Your task to perform on an android device: Open internet settings Image 0: 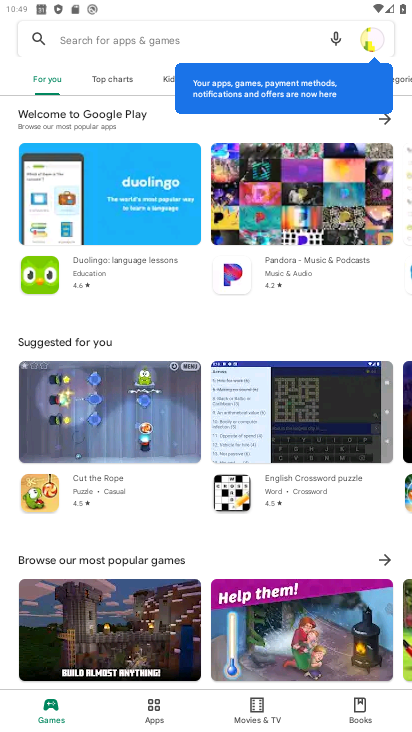
Step 0: press home button
Your task to perform on an android device: Open internet settings Image 1: 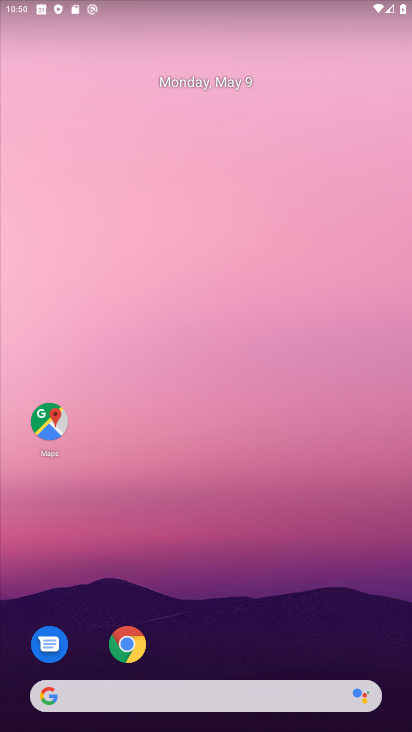
Step 1: drag from (271, 603) to (278, 214)
Your task to perform on an android device: Open internet settings Image 2: 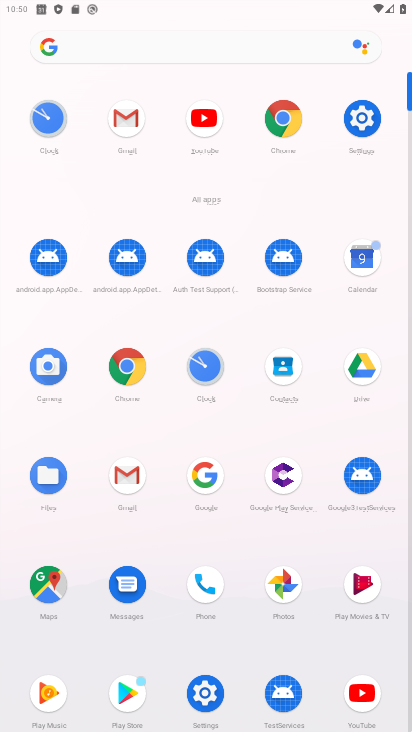
Step 2: click (355, 114)
Your task to perform on an android device: Open internet settings Image 3: 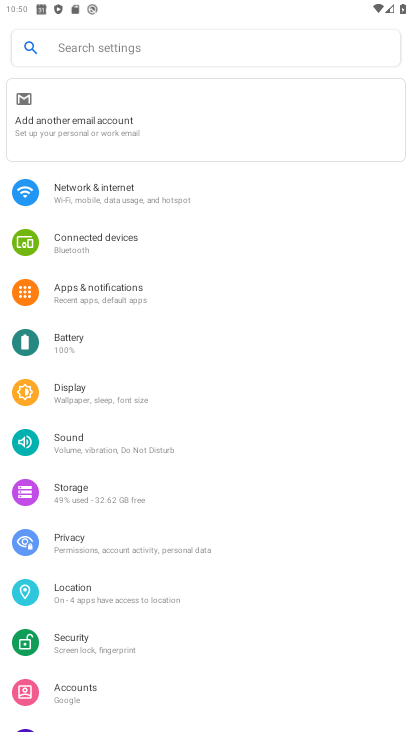
Step 3: click (158, 203)
Your task to perform on an android device: Open internet settings Image 4: 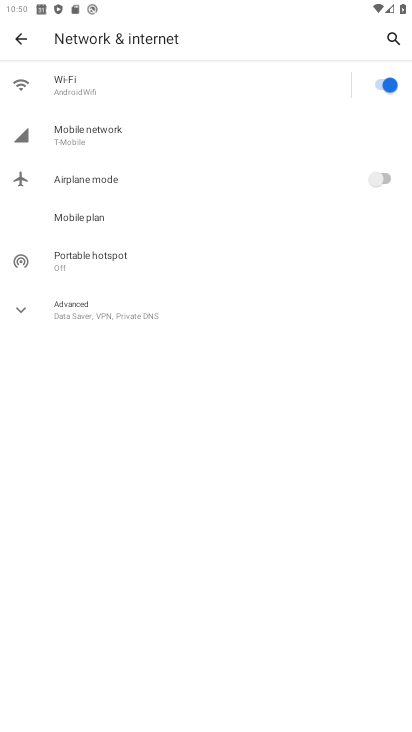
Step 4: task complete